Your task to perform on an android device: open app "Google Chat" (install if not already installed) Image 0: 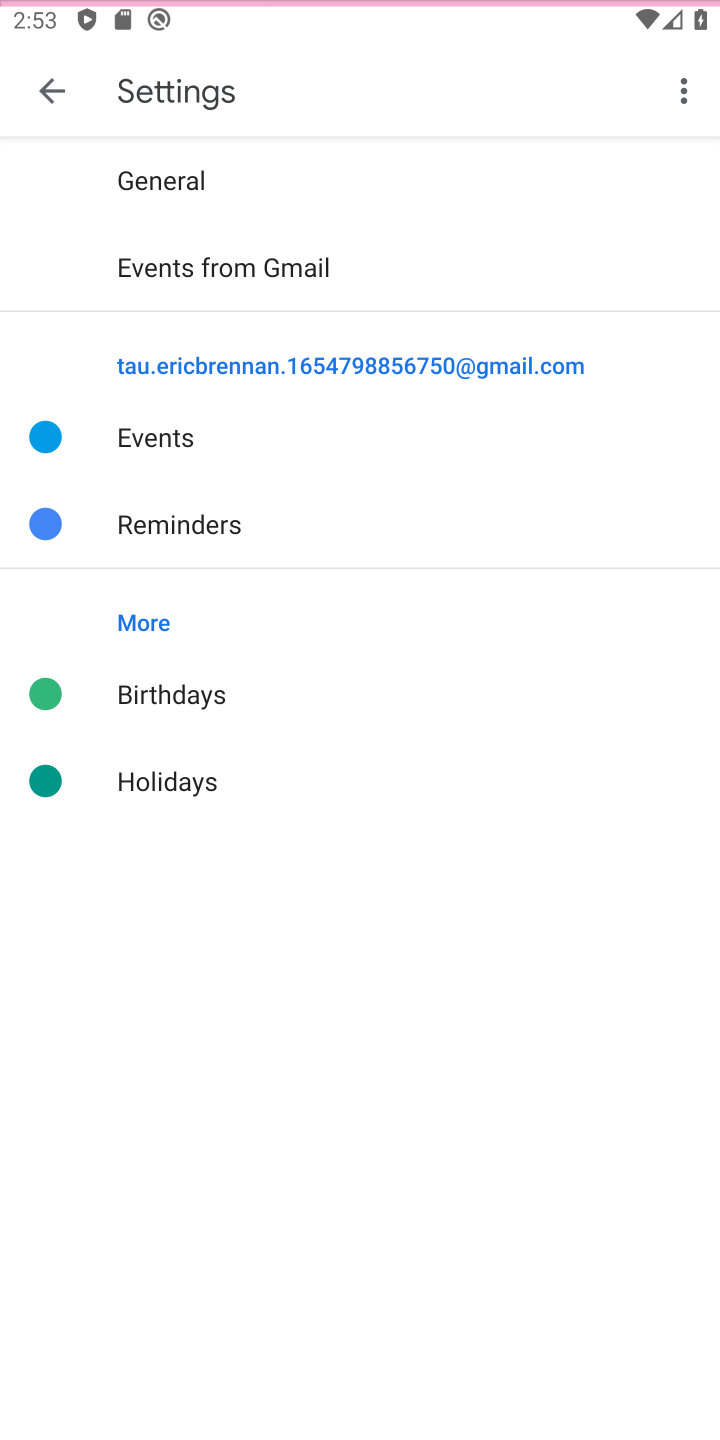
Step 0: click (301, 81)
Your task to perform on an android device: open app "Google Chat" (install if not already installed) Image 1: 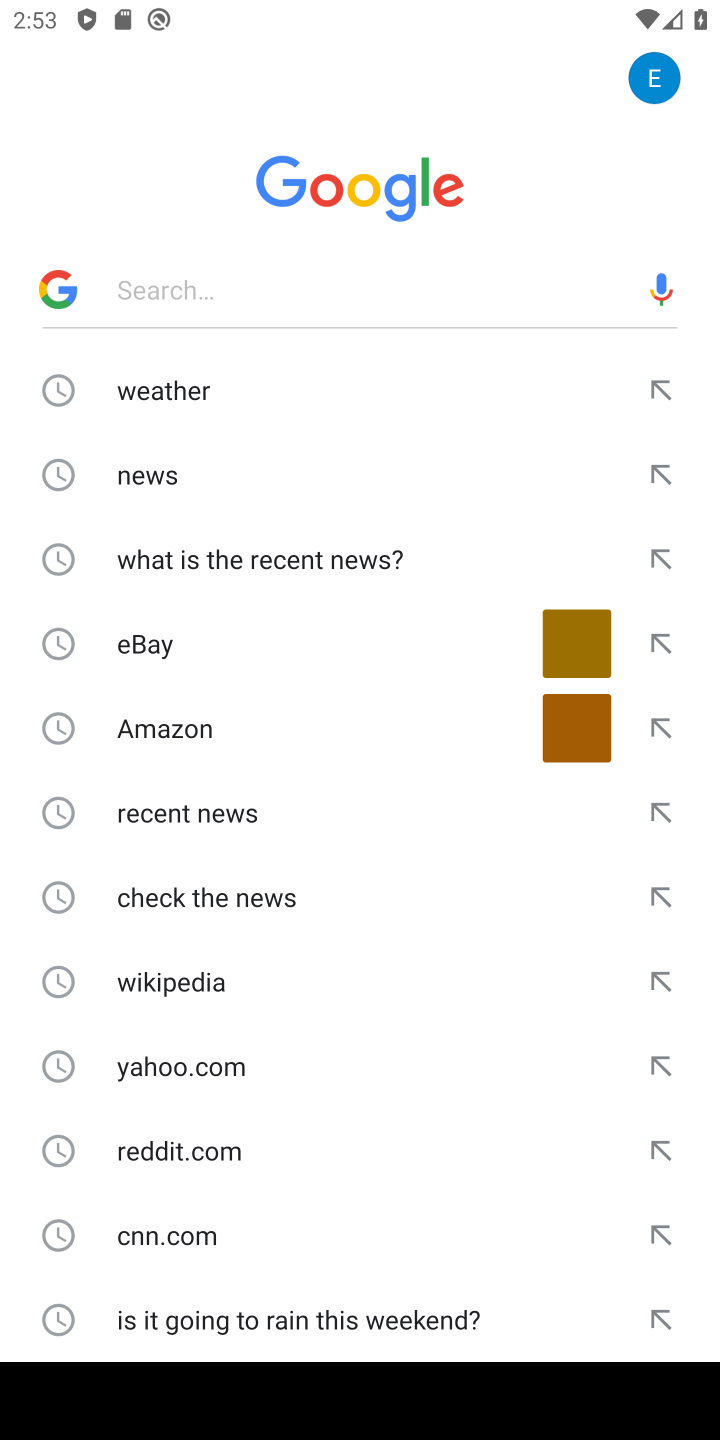
Step 1: press home button
Your task to perform on an android device: open app "Google Chat" (install if not already installed) Image 2: 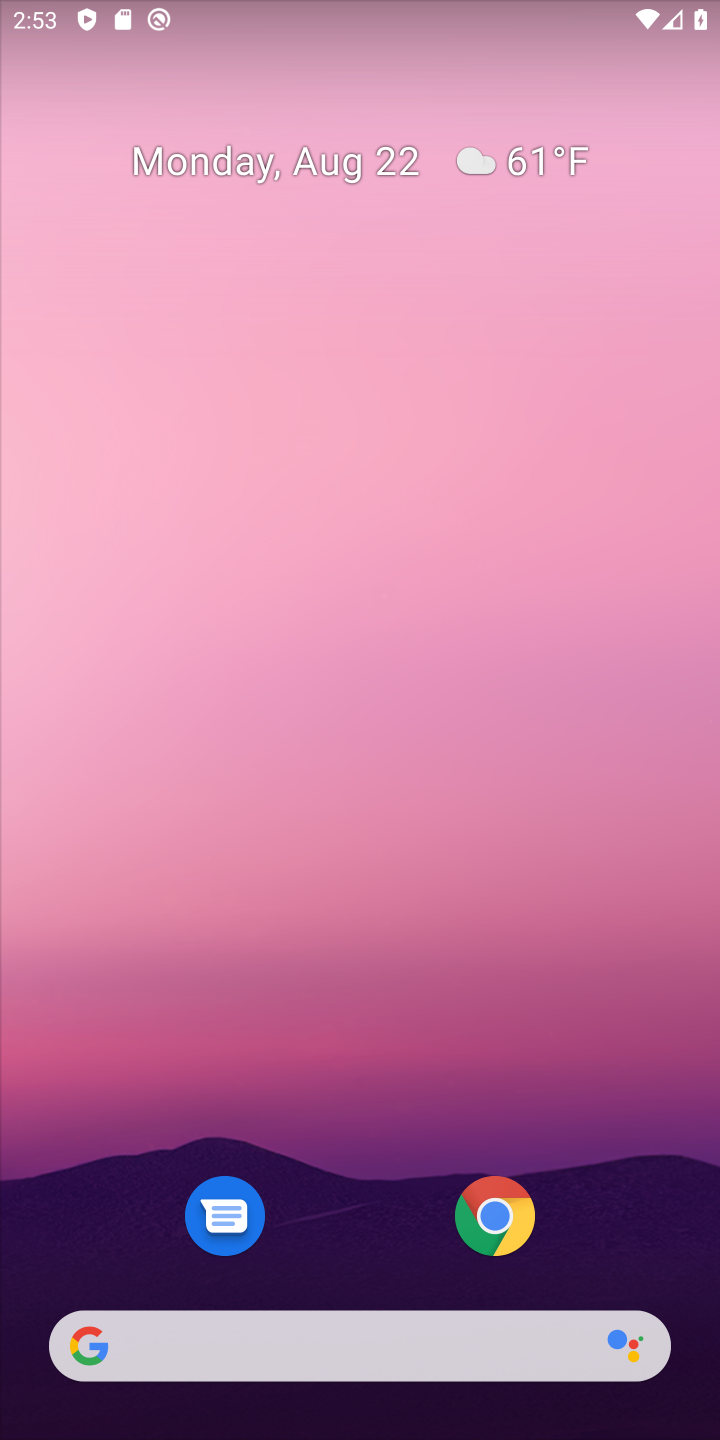
Step 2: drag from (351, 1149) to (272, 118)
Your task to perform on an android device: open app "Google Chat" (install if not already installed) Image 3: 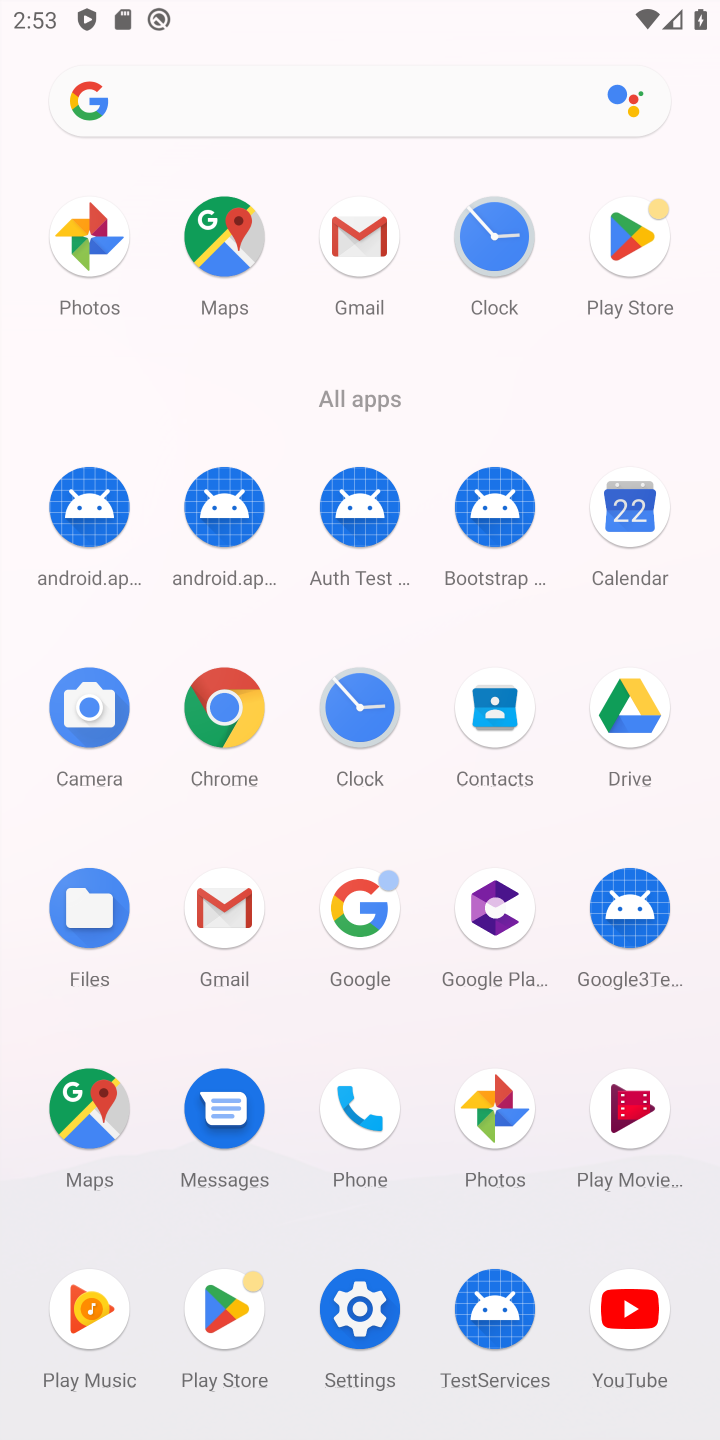
Step 3: click (654, 275)
Your task to perform on an android device: open app "Google Chat" (install if not already installed) Image 4: 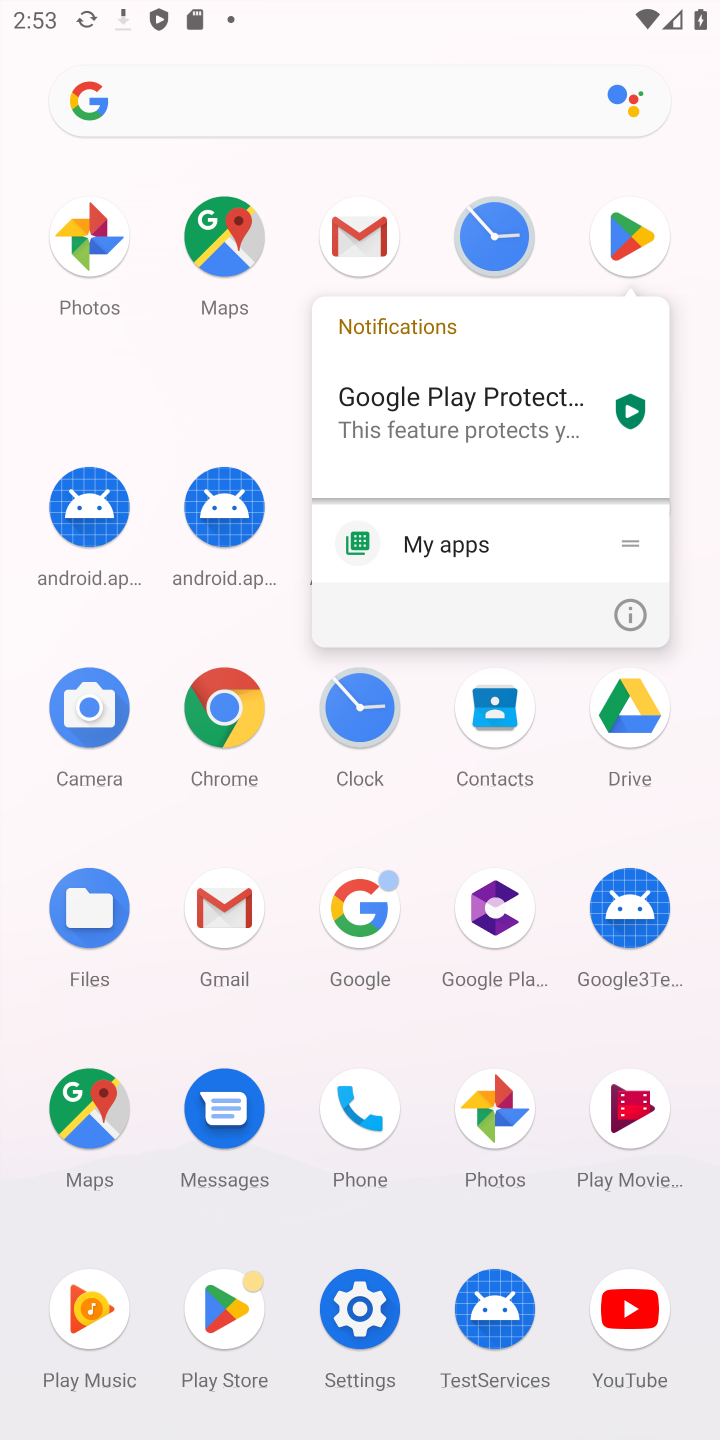
Step 4: click (634, 217)
Your task to perform on an android device: open app "Google Chat" (install if not already installed) Image 5: 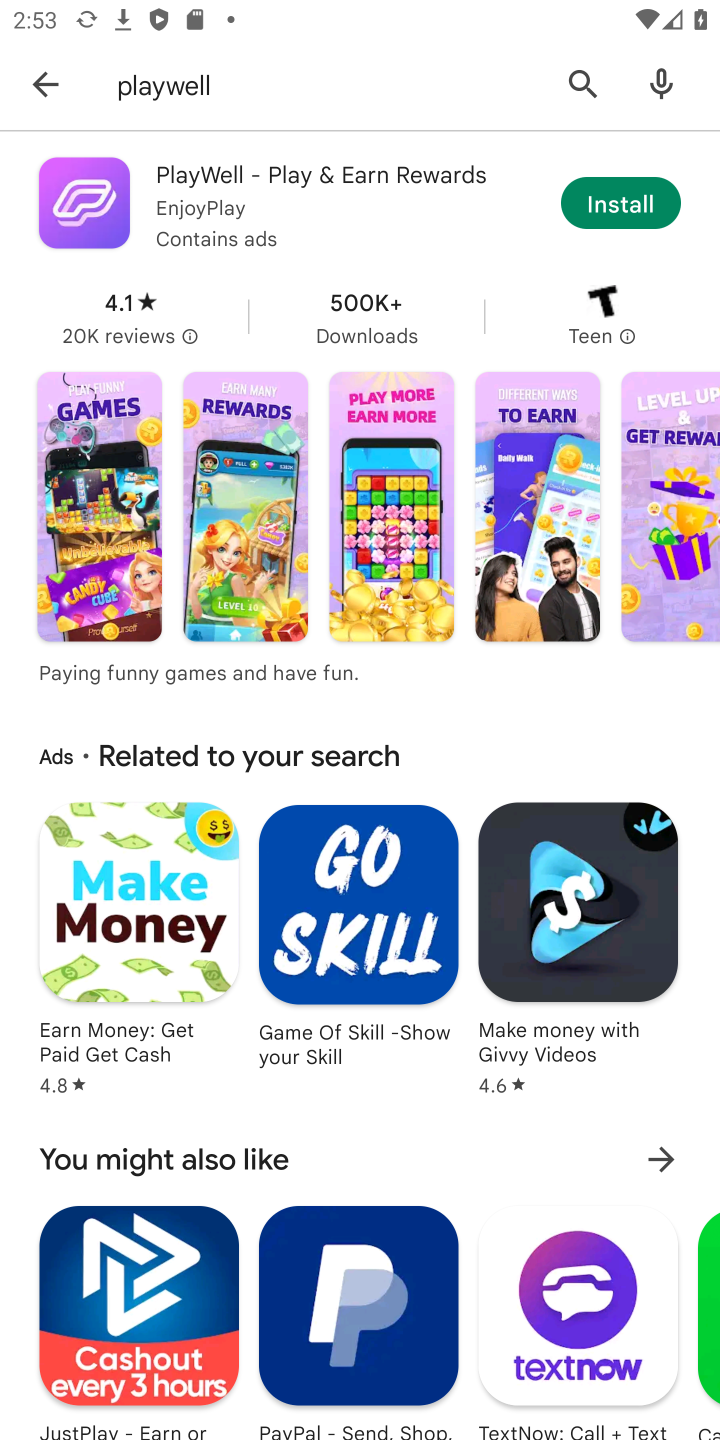
Step 5: click (278, 102)
Your task to perform on an android device: open app "Google Chat" (install if not already installed) Image 6: 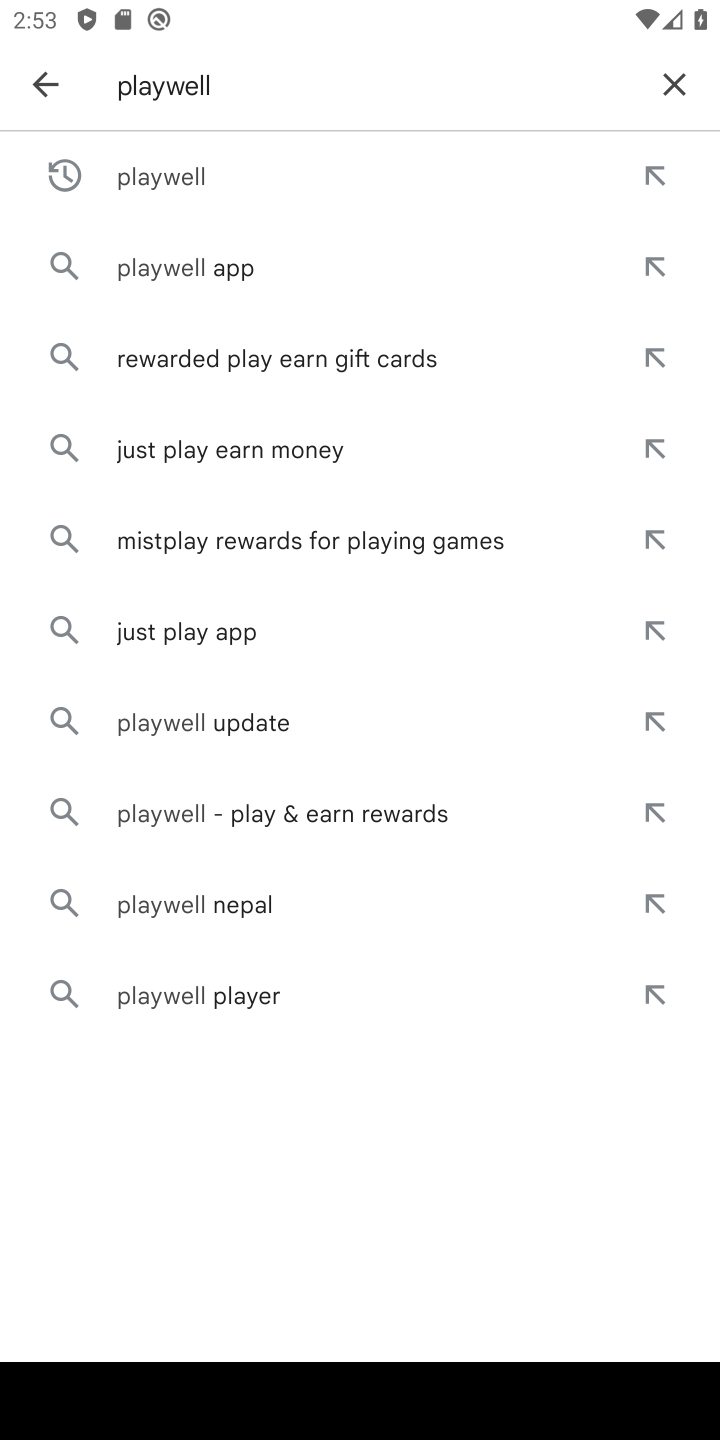
Step 6: click (662, 92)
Your task to perform on an android device: open app "Google Chat" (install if not already installed) Image 7: 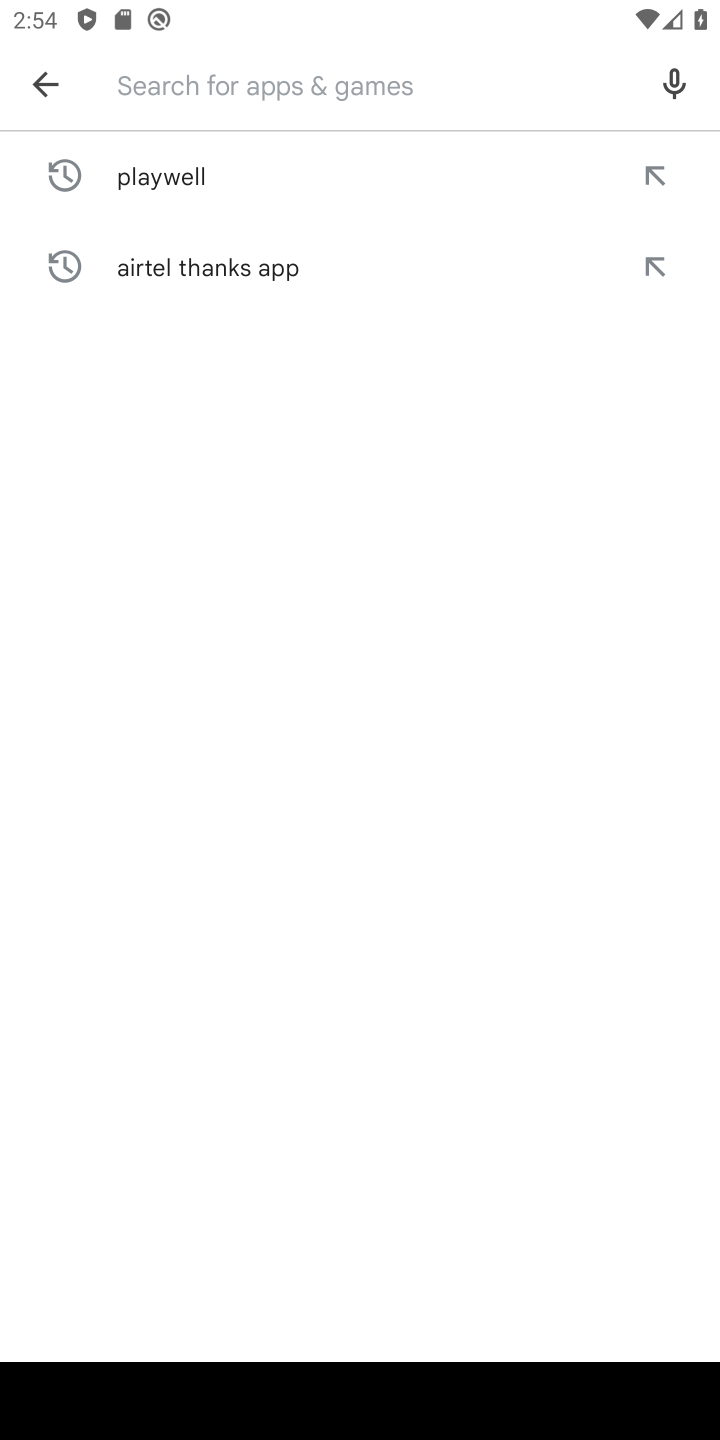
Step 7: type "google chat"
Your task to perform on an android device: open app "Google Chat" (install if not already installed) Image 8: 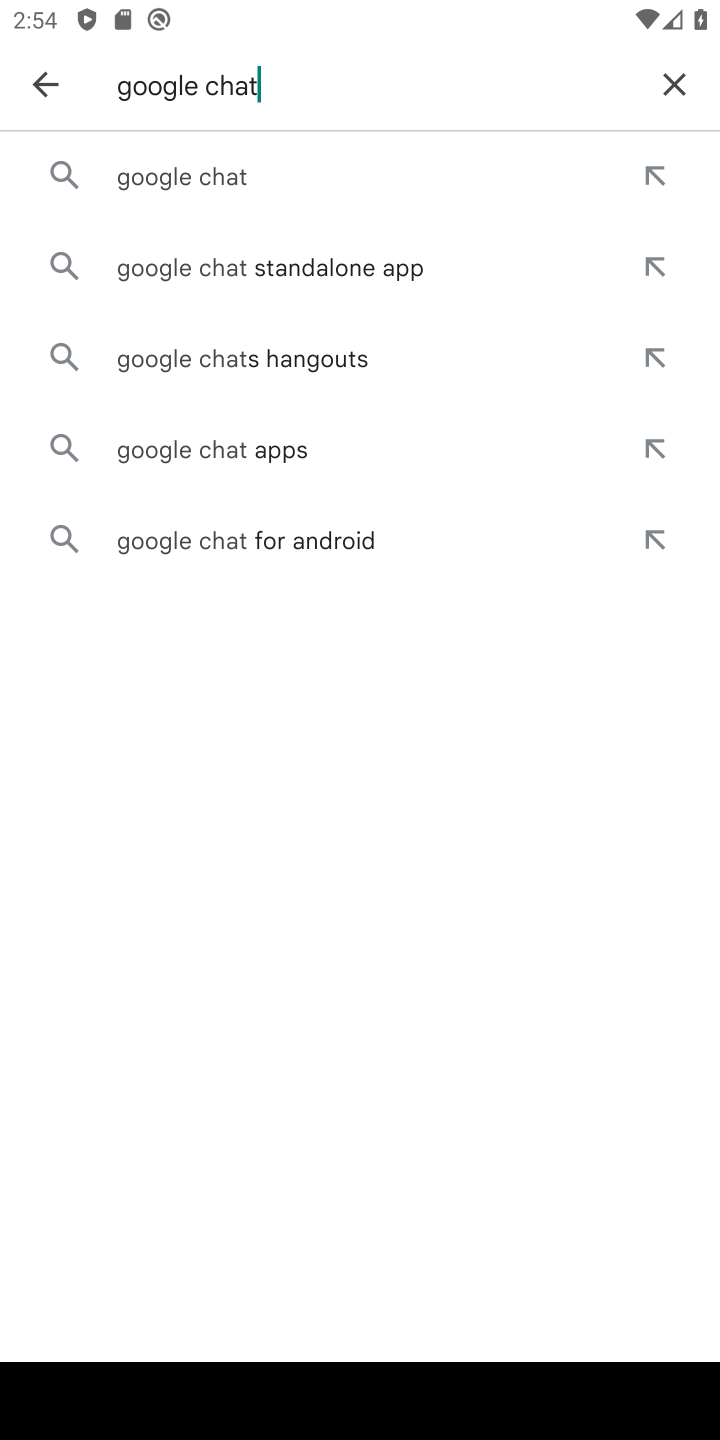
Step 8: click (264, 176)
Your task to perform on an android device: open app "Google Chat" (install if not already installed) Image 9: 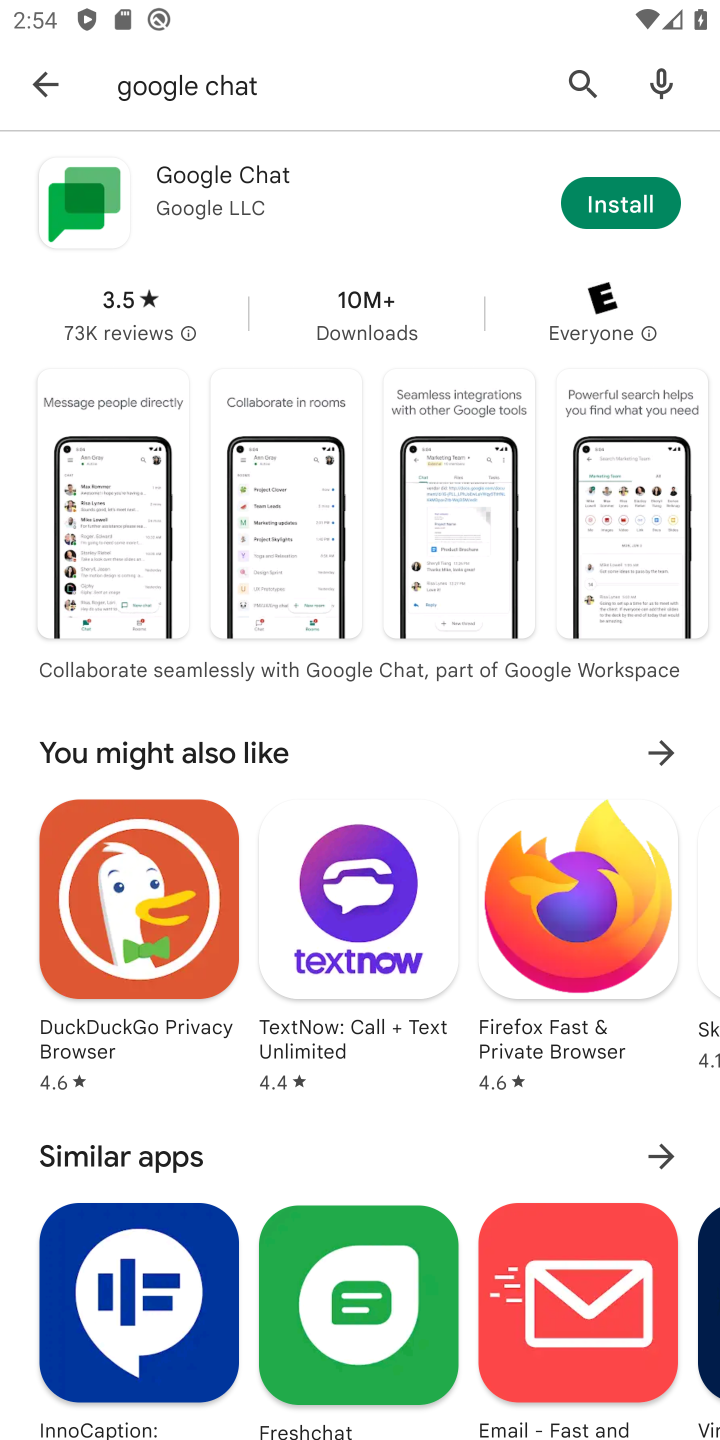
Step 9: click (643, 221)
Your task to perform on an android device: open app "Google Chat" (install if not already installed) Image 10: 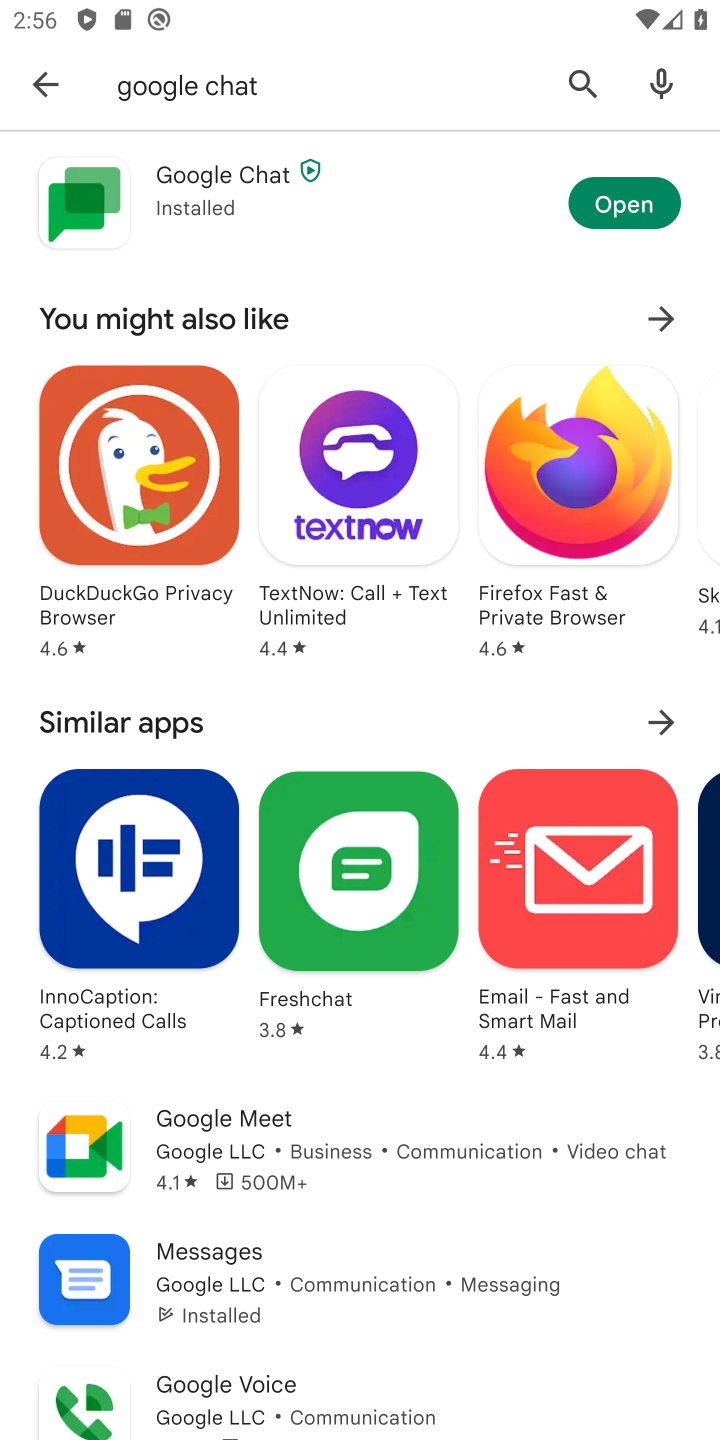
Step 10: click (622, 206)
Your task to perform on an android device: open app "Google Chat" (install if not already installed) Image 11: 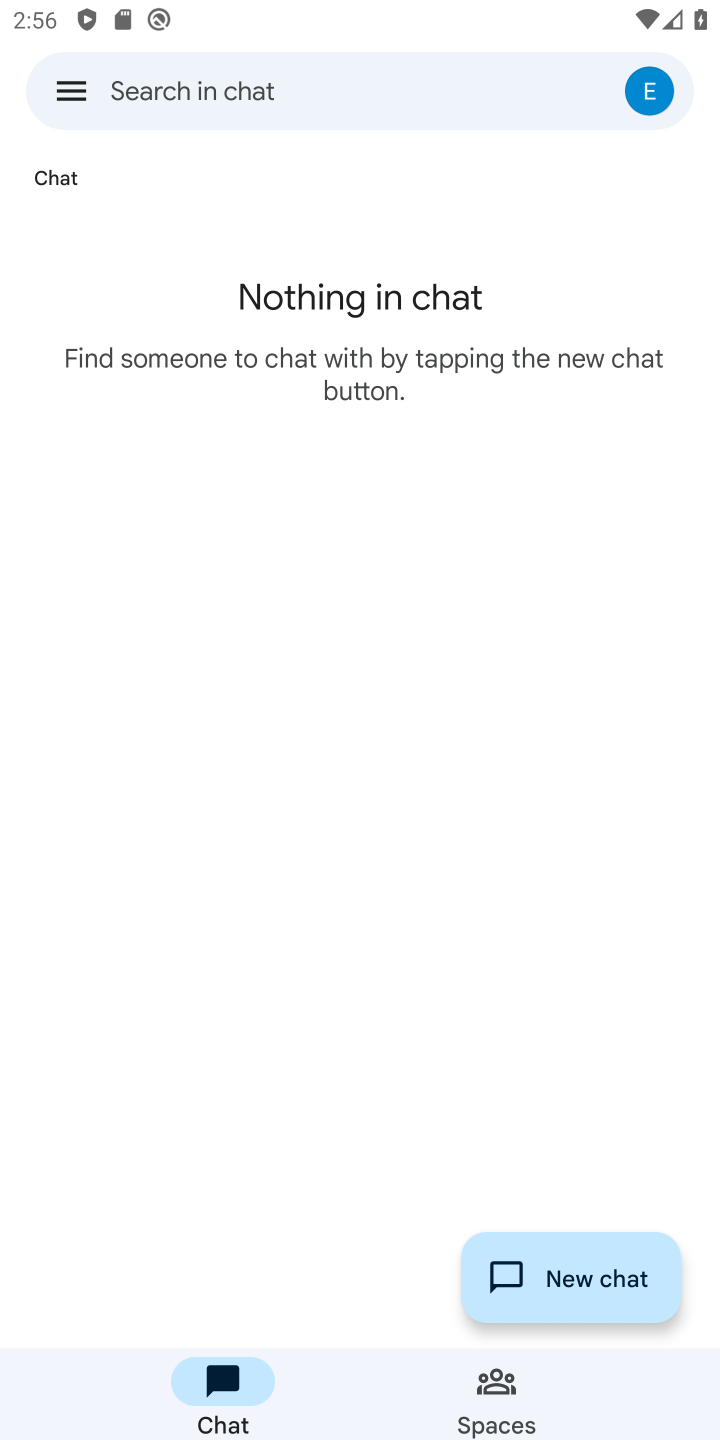
Step 11: task complete